Your task to perform on an android device: toggle priority inbox in the gmail app Image 0: 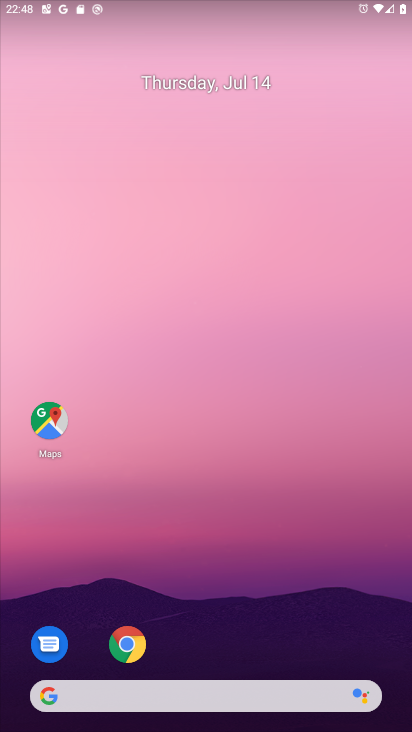
Step 0: drag from (228, 666) to (288, 140)
Your task to perform on an android device: toggle priority inbox in the gmail app Image 1: 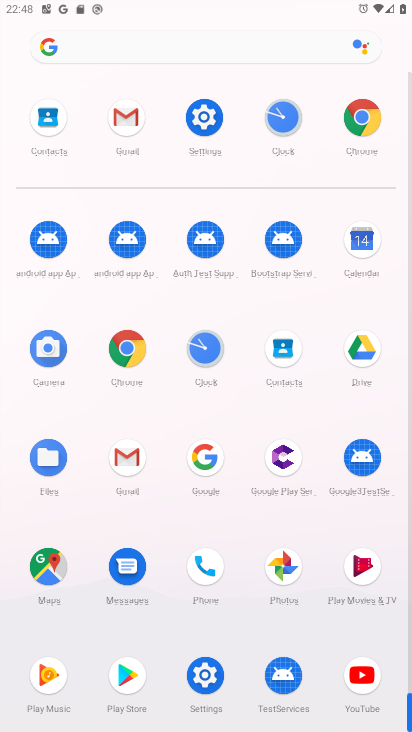
Step 1: click (116, 119)
Your task to perform on an android device: toggle priority inbox in the gmail app Image 2: 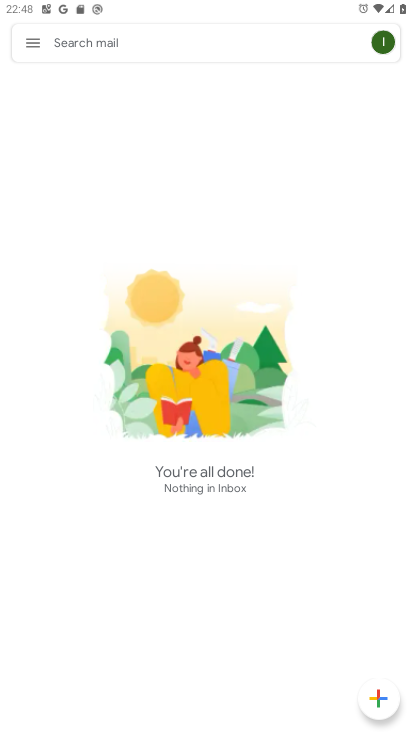
Step 2: click (37, 46)
Your task to perform on an android device: toggle priority inbox in the gmail app Image 3: 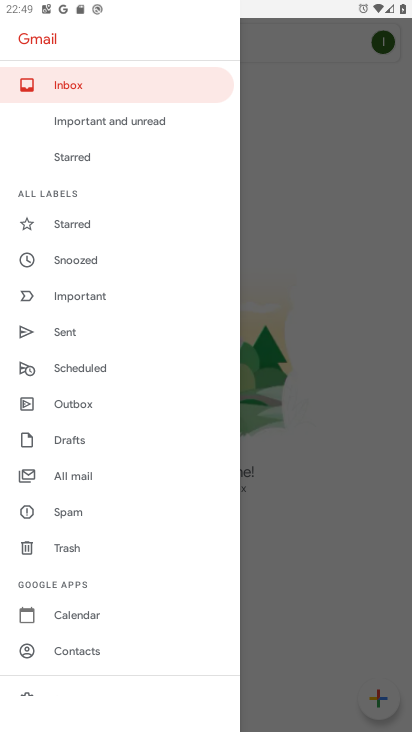
Step 3: drag from (70, 542) to (94, 158)
Your task to perform on an android device: toggle priority inbox in the gmail app Image 4: 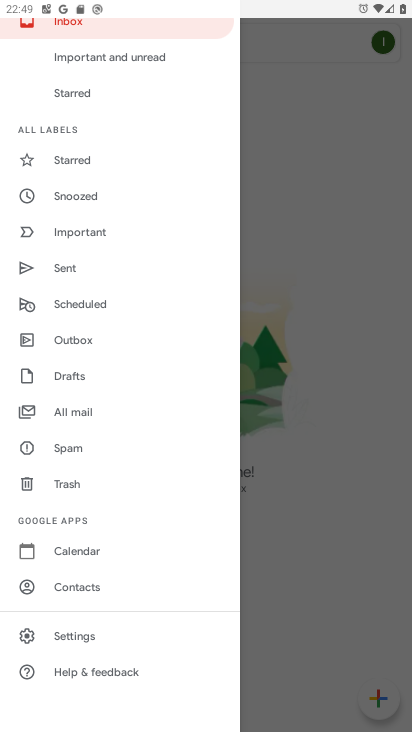
Step 4: click (86, 644)
Your task to perform on an android device: toggle priority inbox in the gmail app Image 5: 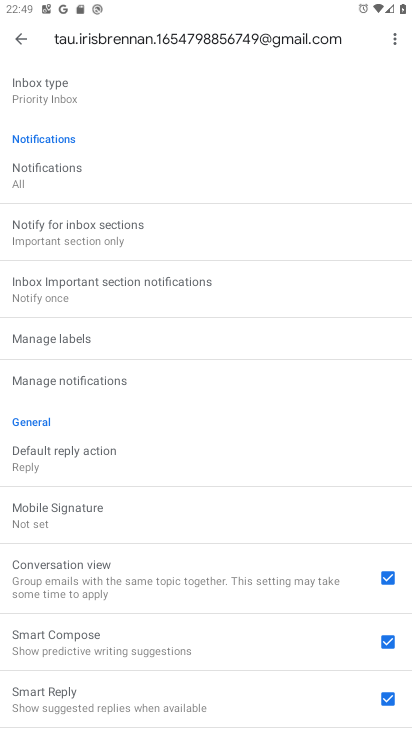
Step 5: drag from (111, 642) to (181, 86)
Your task to perform on an android device: toggle priority inbox in the gmail app Image 6: 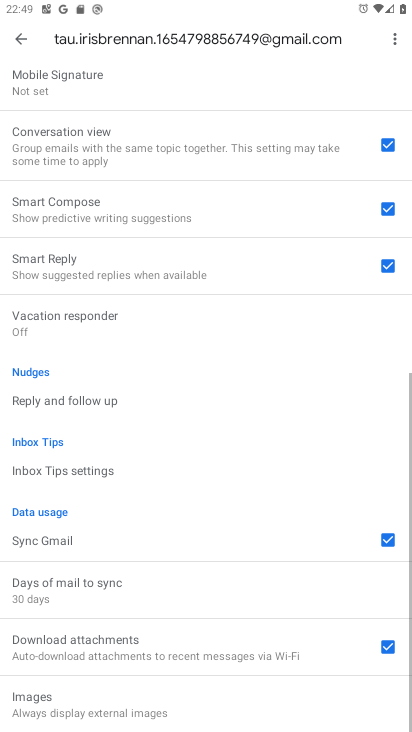
Step 6: drag from (181, 86) to (158, 664)
Your task to perform on an android device: toggle priority inbox in the gmail app Image 7: 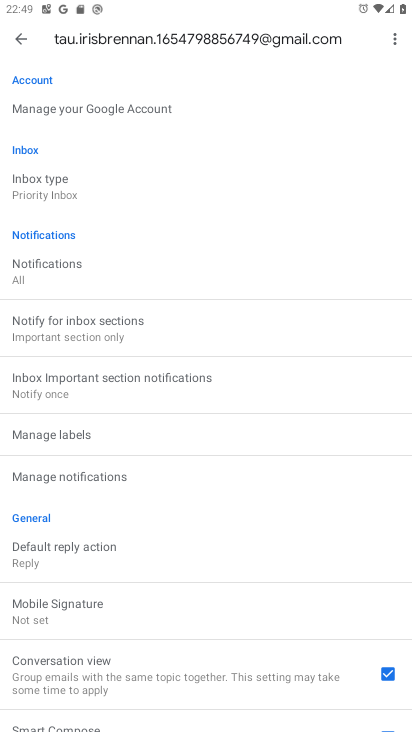
Step 7: drag from (153, 507) to (195, 124)
Your task to perform on an android device: toggle priority inbox in the gmail app Image 8: 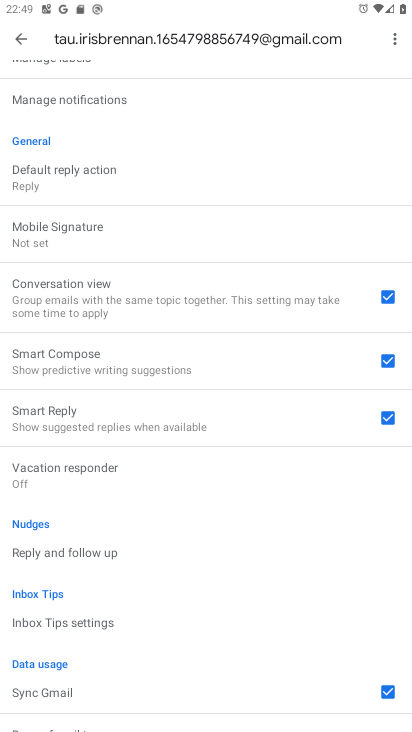
Step 8: drag from (112, 643) to (145, 265)
Your task to perform on an android device: toggle priority inbox in the gmail app Image 9: 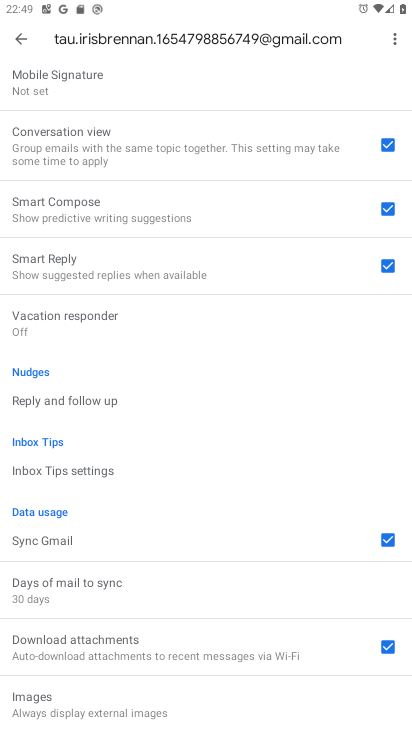
Step 9: drag from (188, 123) to (210, 564)
Your task to perform on an android device: toggle priority inbox in the gmail app Image 10: 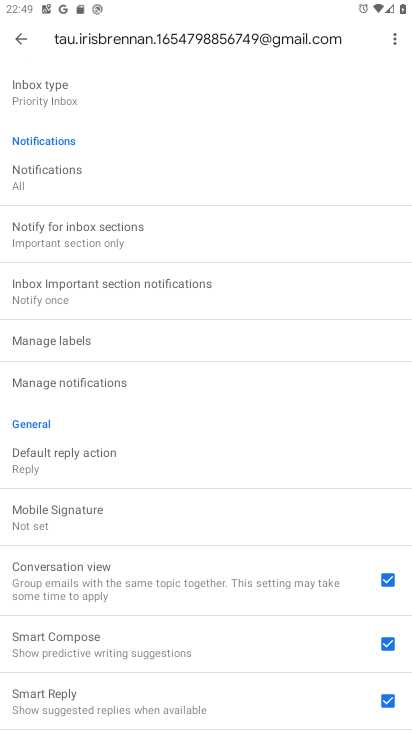
Step 10: click (179, 97)
Your task to perform on an android device: toggle priority inbox in the gmail app Image 11: 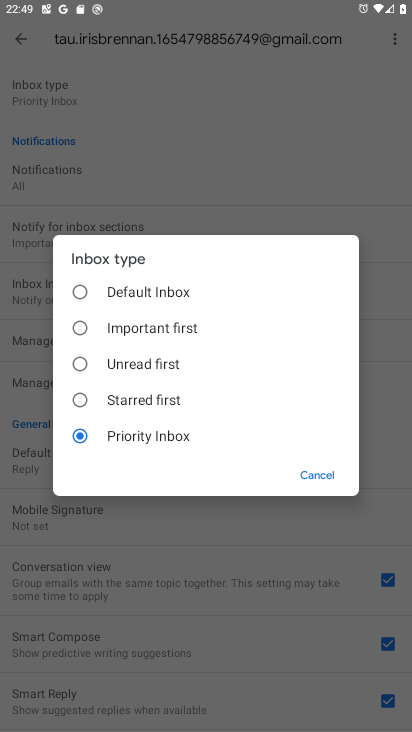
Step 11: click (124, 318)
Your task to perform on an android device: toggle priority inbox in the gmail app Image 12: 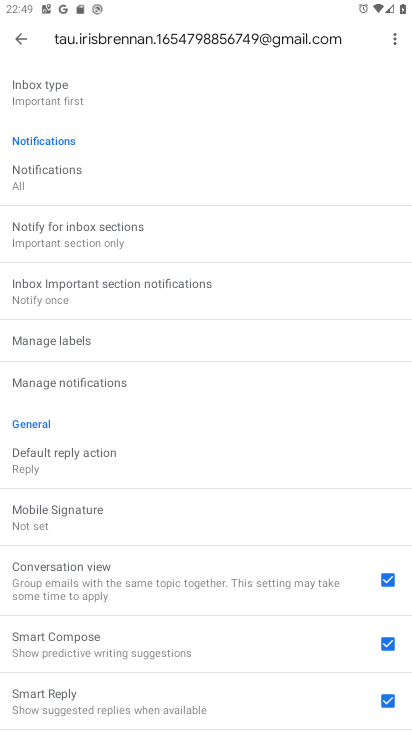
Step 12: task complete